Your task to perform on an android device: turn on sleep mode Image 0: 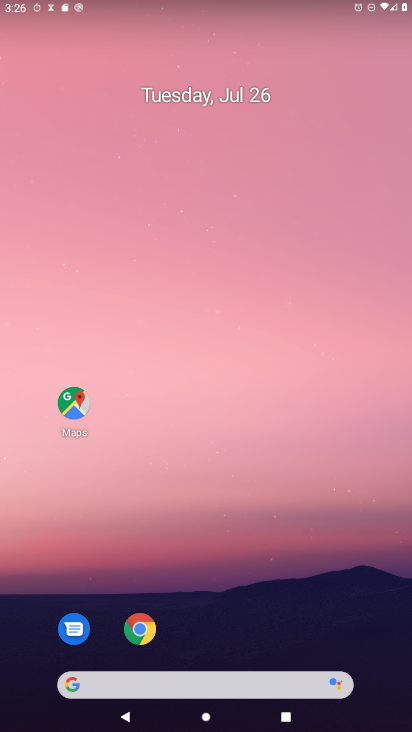
Step 0: drag from (168, 672) to (280, 145)
Your task to perform on an android device: turn on sleep mode Image 1: 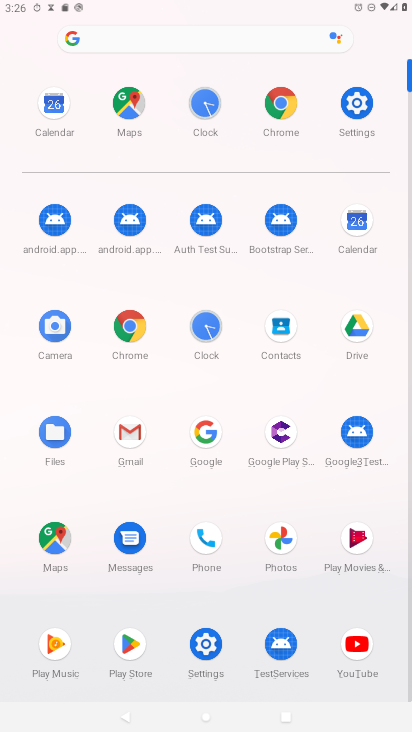
Step 1: click (368, 115)
Your task to perform on an android device: turn on sleep mode Image 2: 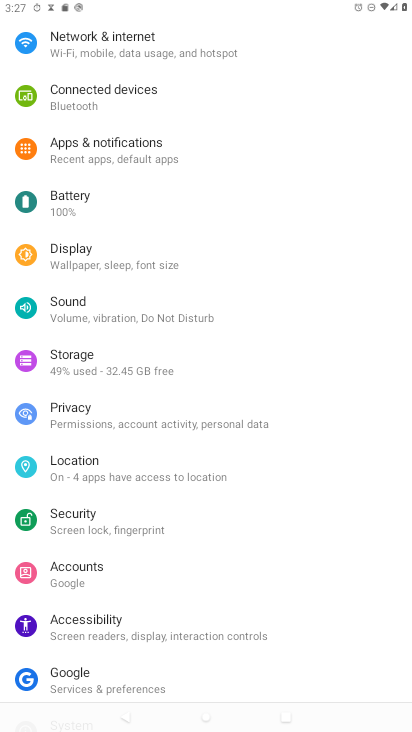
Step 2: click (88, 242)
Your task to perform on an android device: turn on sleep mode Image 3: 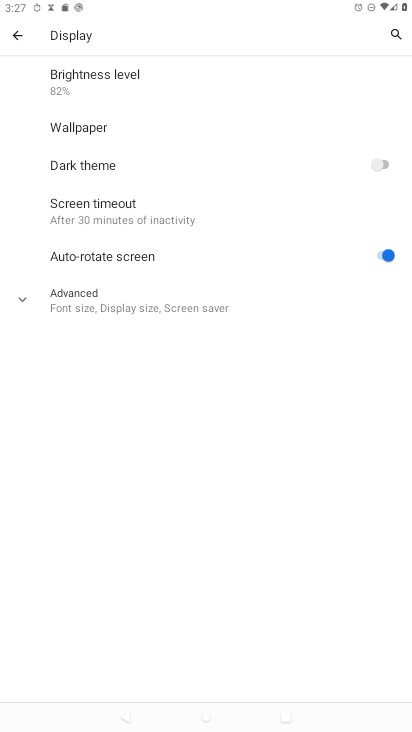
Step 3: task complete